Your task to perform on an android device: Open privacy settings Image 0: 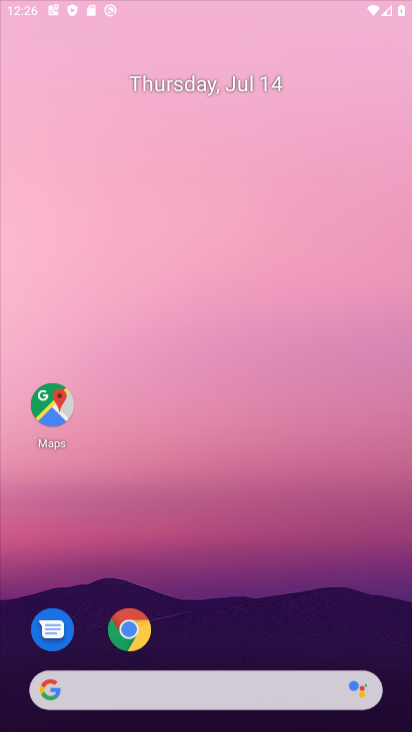
Step 0: click (282, 300)
Your task to perform on an android device: Open privacy settings Image 1: 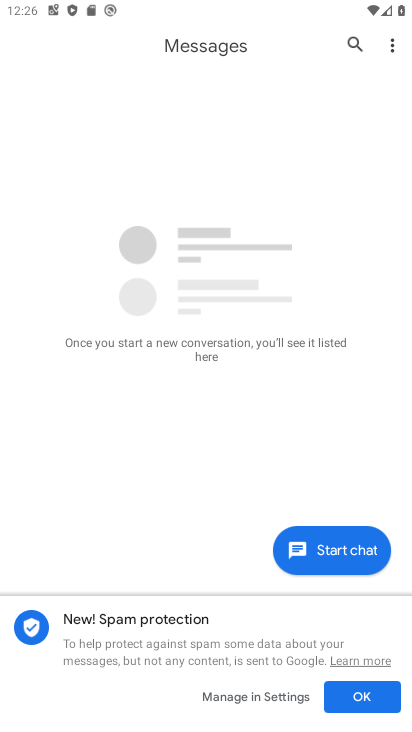
Step 1: press home button
Your task to perform on an android device: Open privacy settings Image 2: 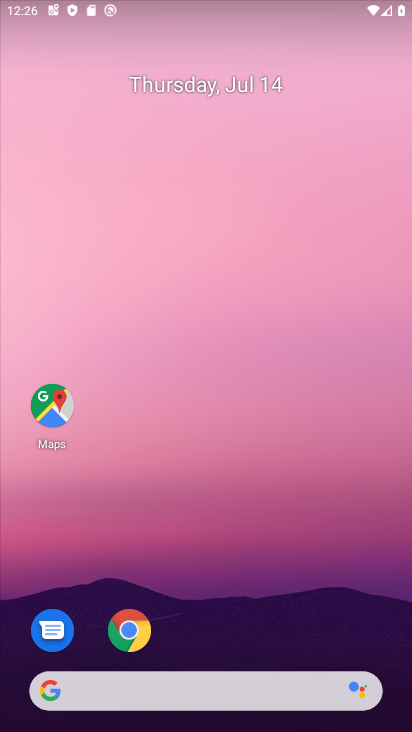
Step 2: drag from (190, 674) to (184, 264)
Your task to perform on an android device: Open privacy settings Image 3: 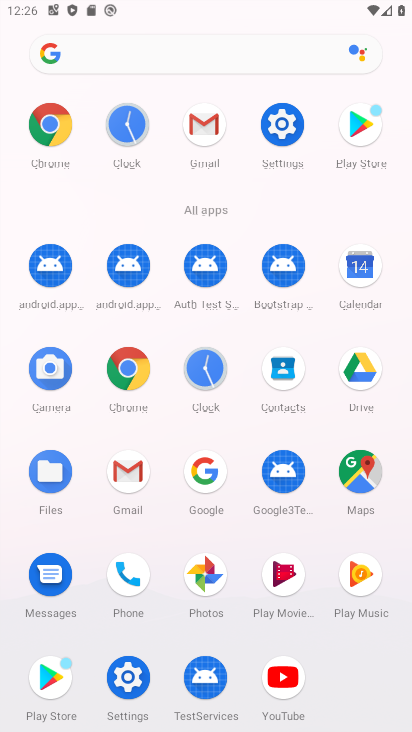
Step 3: click (263, 124)
Your task to perform on an android device: Open privacy settings Image 4: 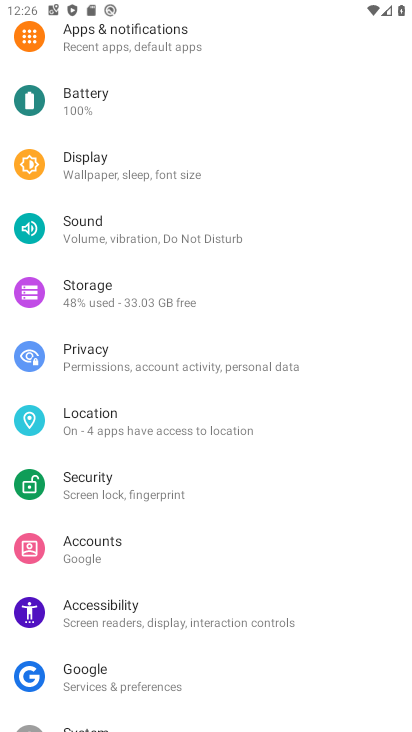
Step 4: click (69, 359)
Your task to perform on an android device: Open privacy settings Image 5: 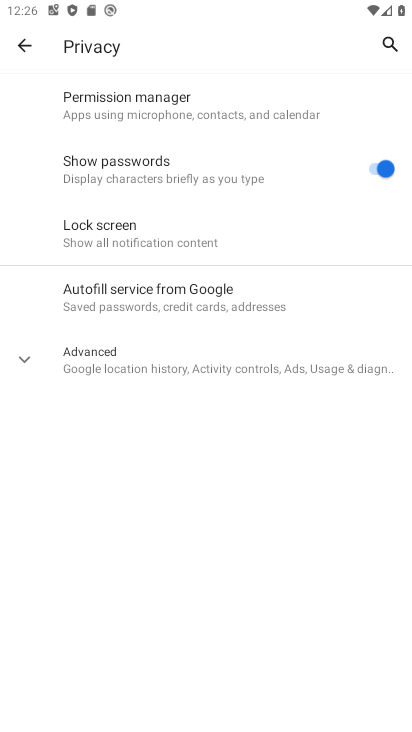
Step 5: click (69, 359)
Your task to perform on an android device: Open privacy settings Image 6: 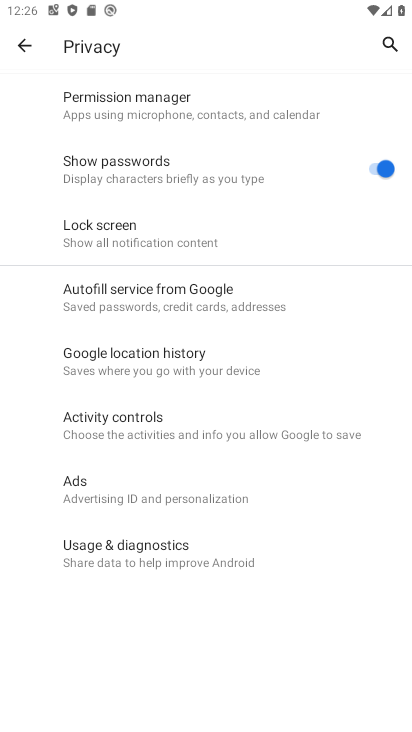
Step 6: task complete